Your task to perform on an android device: refresh tabs in the chrome app Image 0: 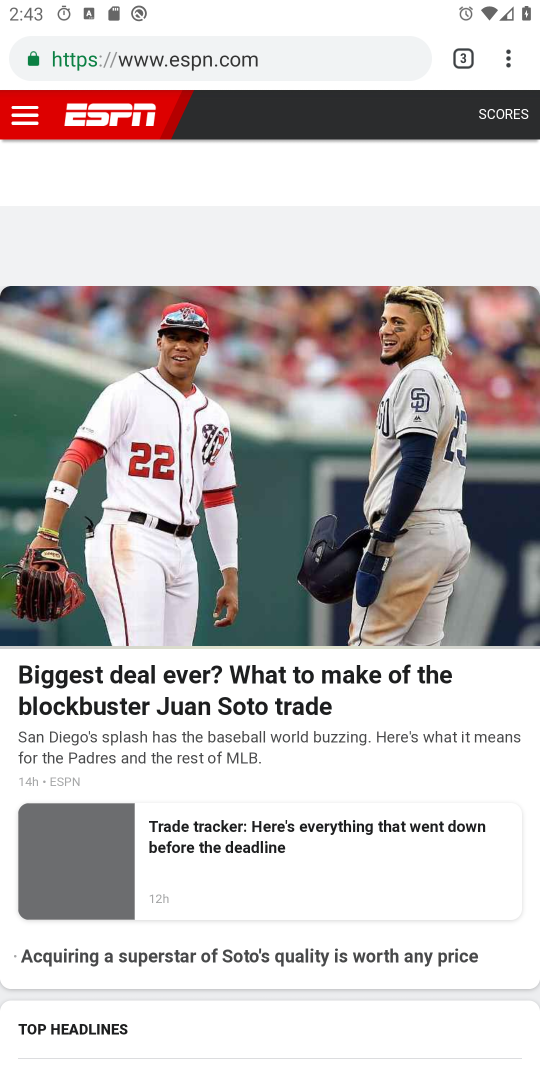
Step 0: click (507, 57)
Your task to perform on an android device: refresh tabs in the chrome app Image 1: 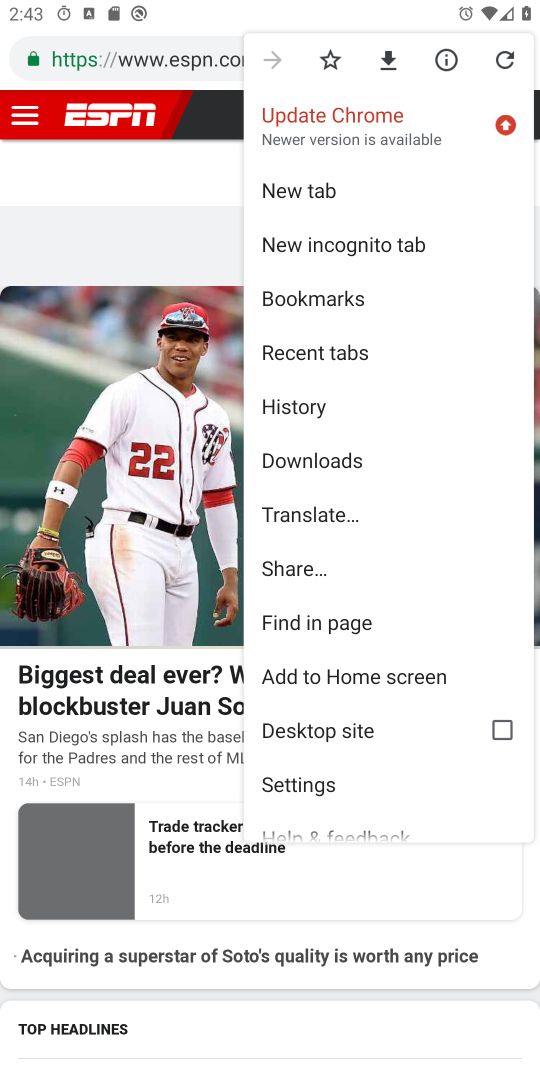
Step 1: click (508, 67)
Your task to perform on an android device: refresh tabs in the chrome app Image 2: 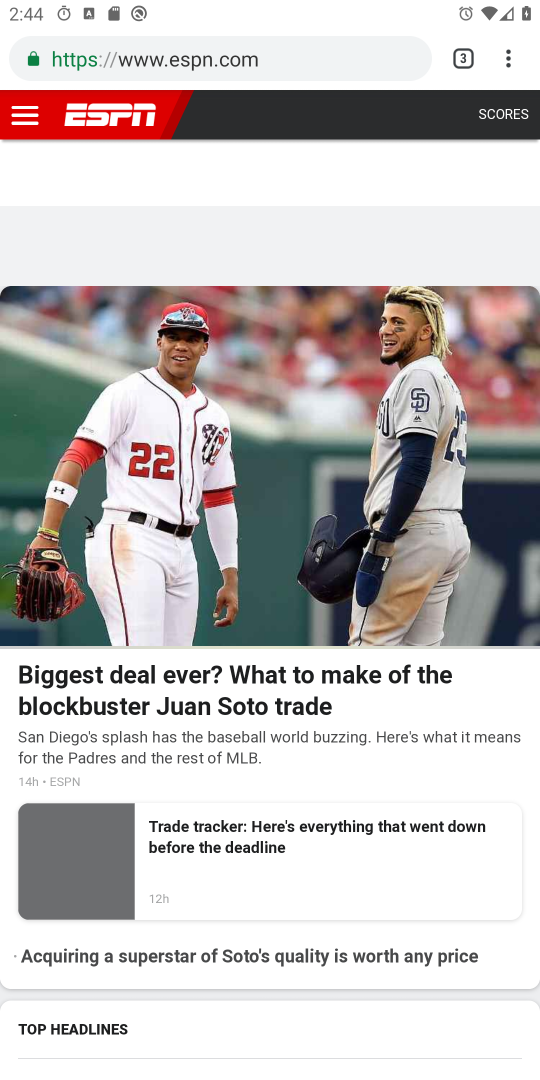
Step 2: task complete